Your task to perform on an android device: delete a single message in the gmail app Image 0: 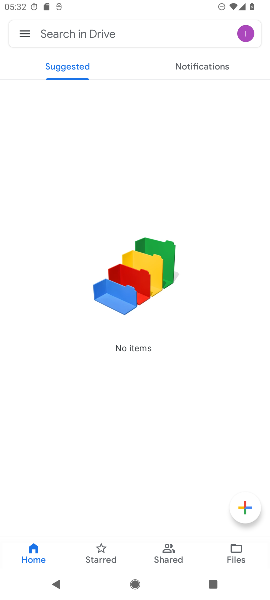
Step 0: press home button
Your task to perform on an android device: delete a single message in the gmail app Image 1: 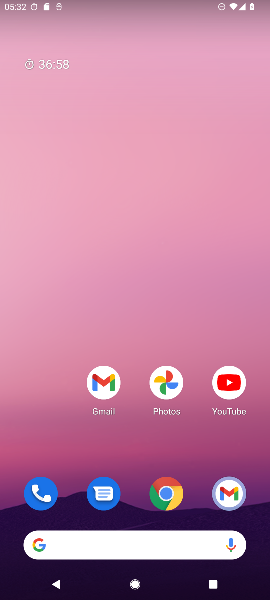
Step 1: drag from (47, 453) to (75, 89)
Your task to perform on an android device: delete a single message in the gmail app Image 2: 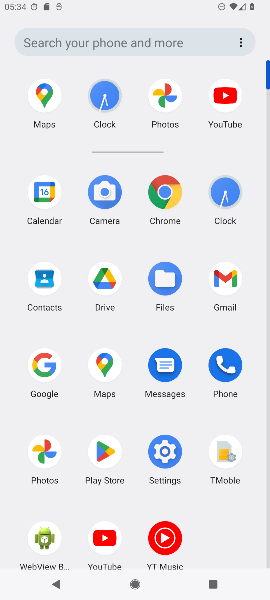
Step 2: click (229, 287)
Your task to perform on an android device: delete a single message in the gmail app Image 3: 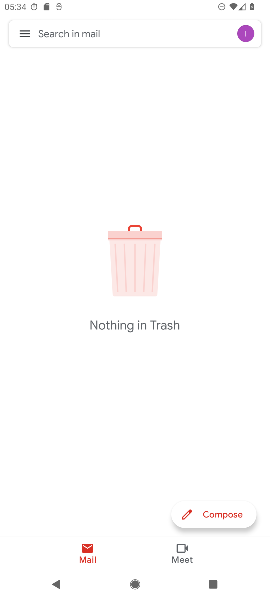
Step 3: click (25, 34)
Your task to perform on an android device: delete a single message in the gmail app Image 4: 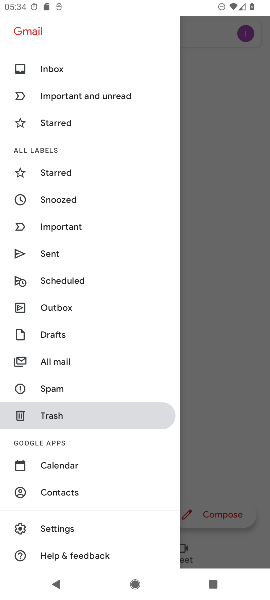
Step 4: click (70, 361)
Your task to perform on an android device: delete a single message in the gmail app Image 5: 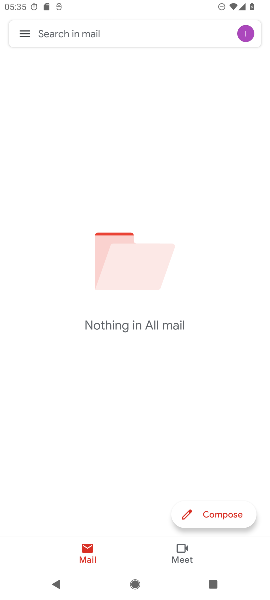
Step 5: task complete